Your task to perform on an android device: Open settings on Google Maps Image 0: 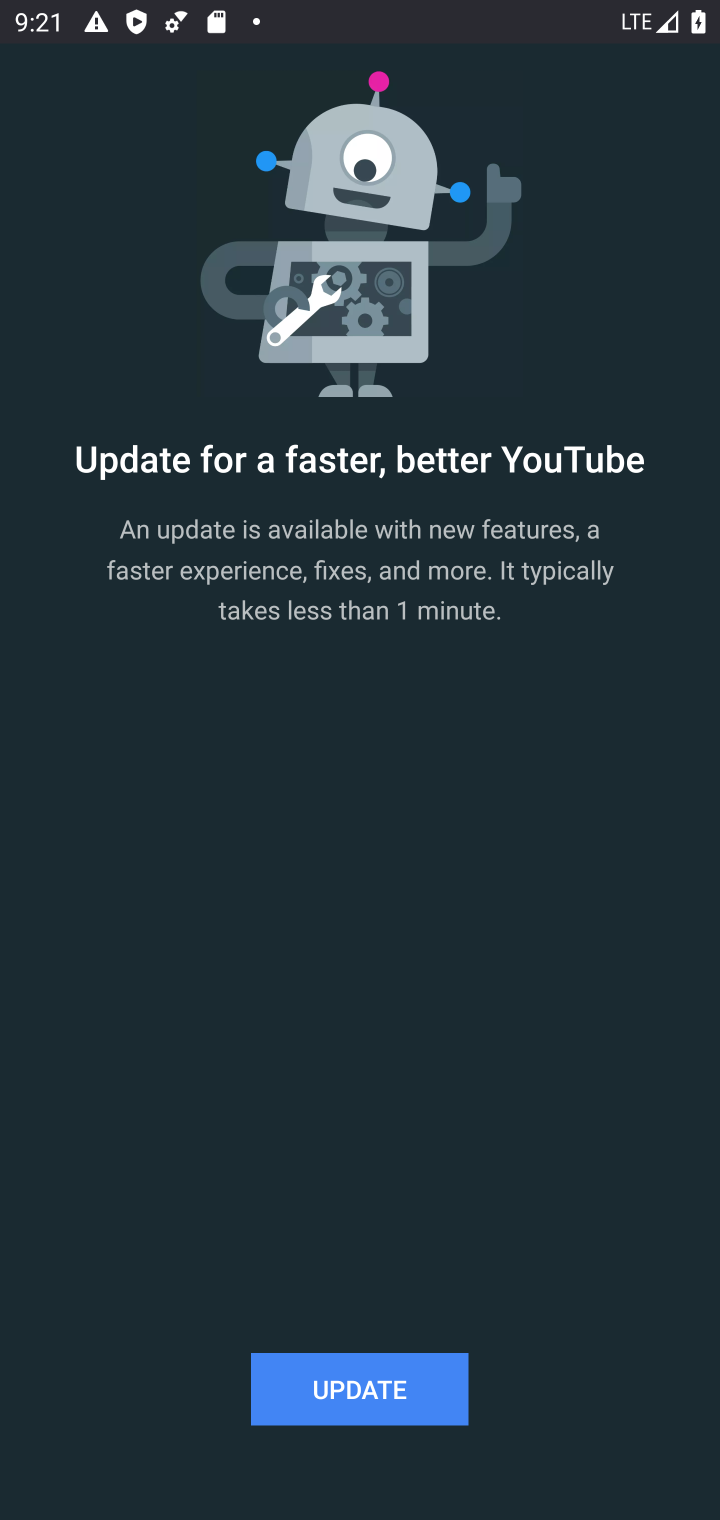
Step 0: press home button
Your task to perform on an android device: Open settings on Google Maps Image 1: 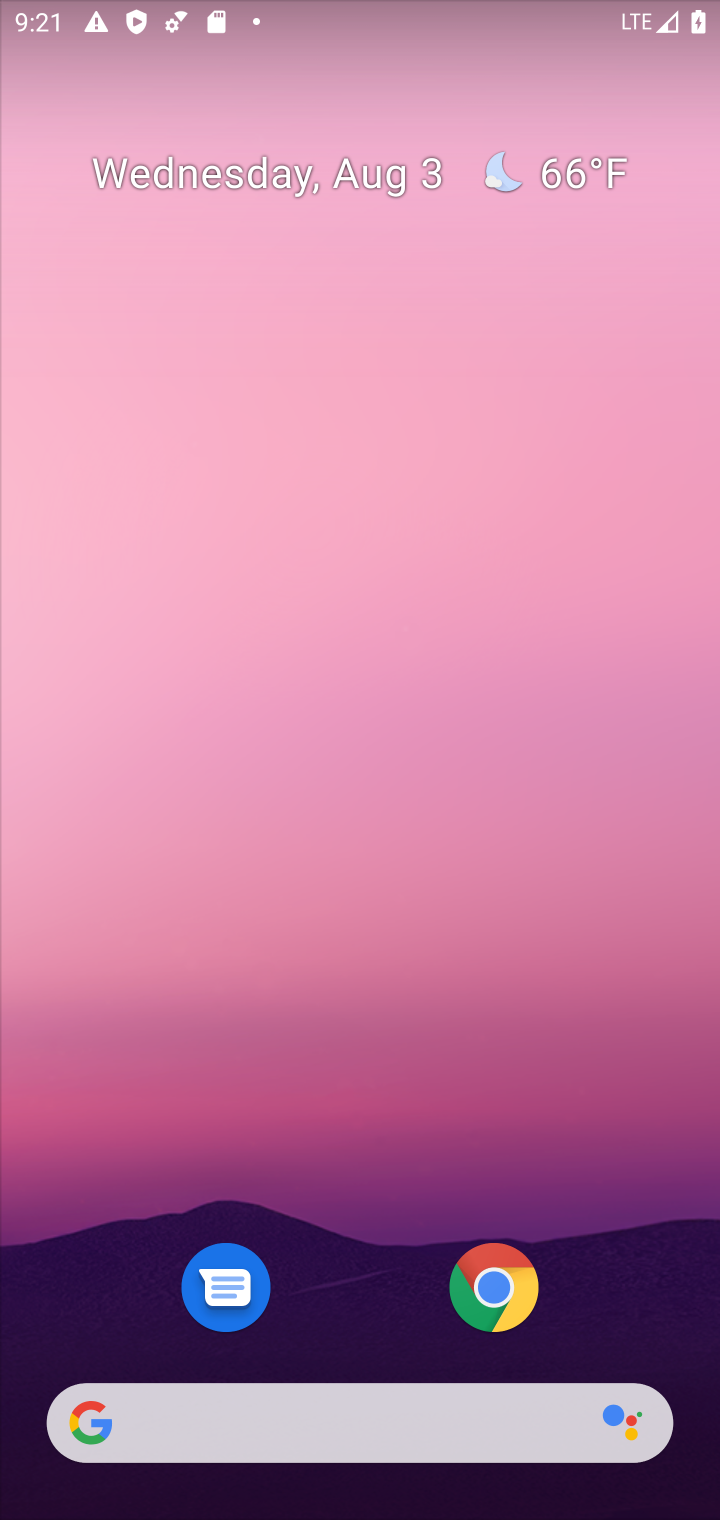
Step 1: drag from (238, 794) to (169, 15)
Your task to perform on an android device: Open settings on Google Maps Image 2: 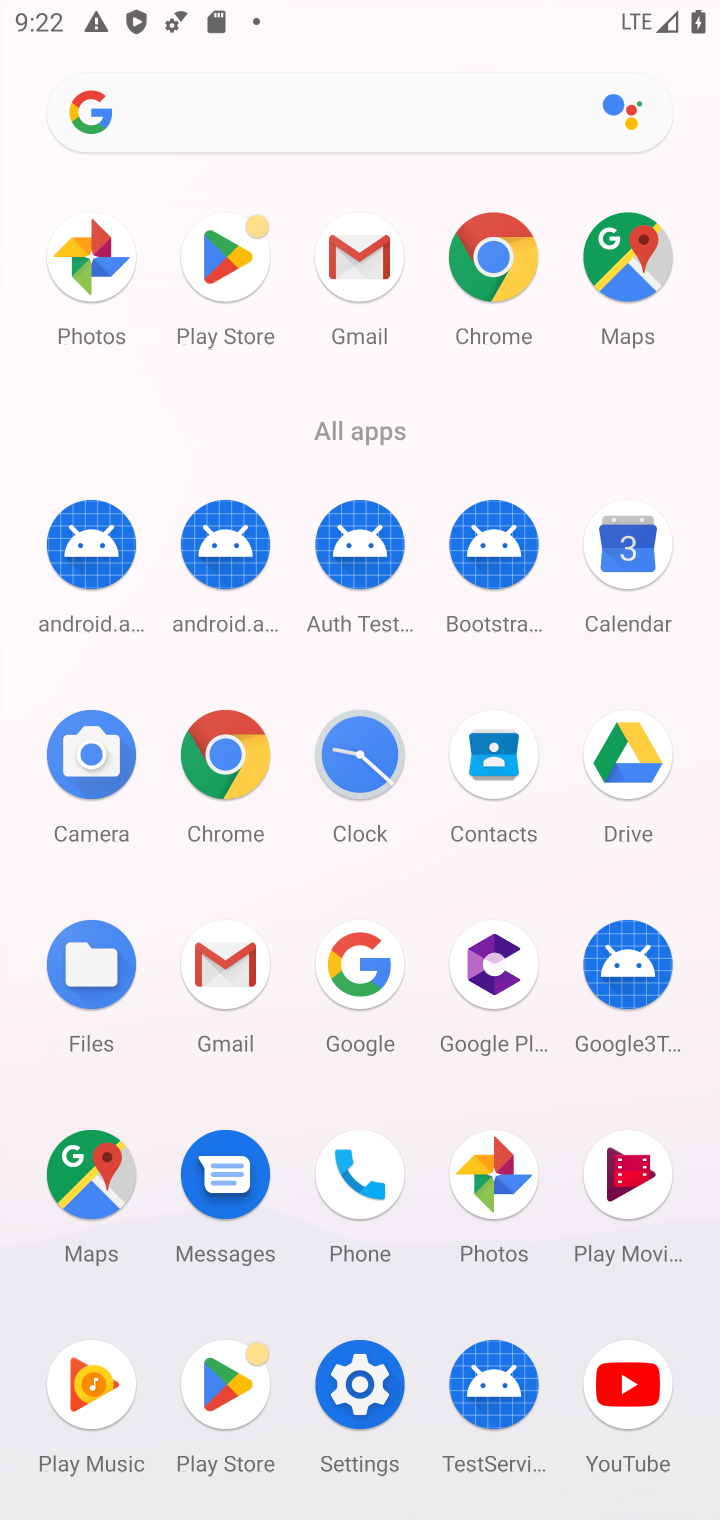
Step 2: click (363, 974)
Your task to perform on an android device: Open settings on Google Maps Image 3: 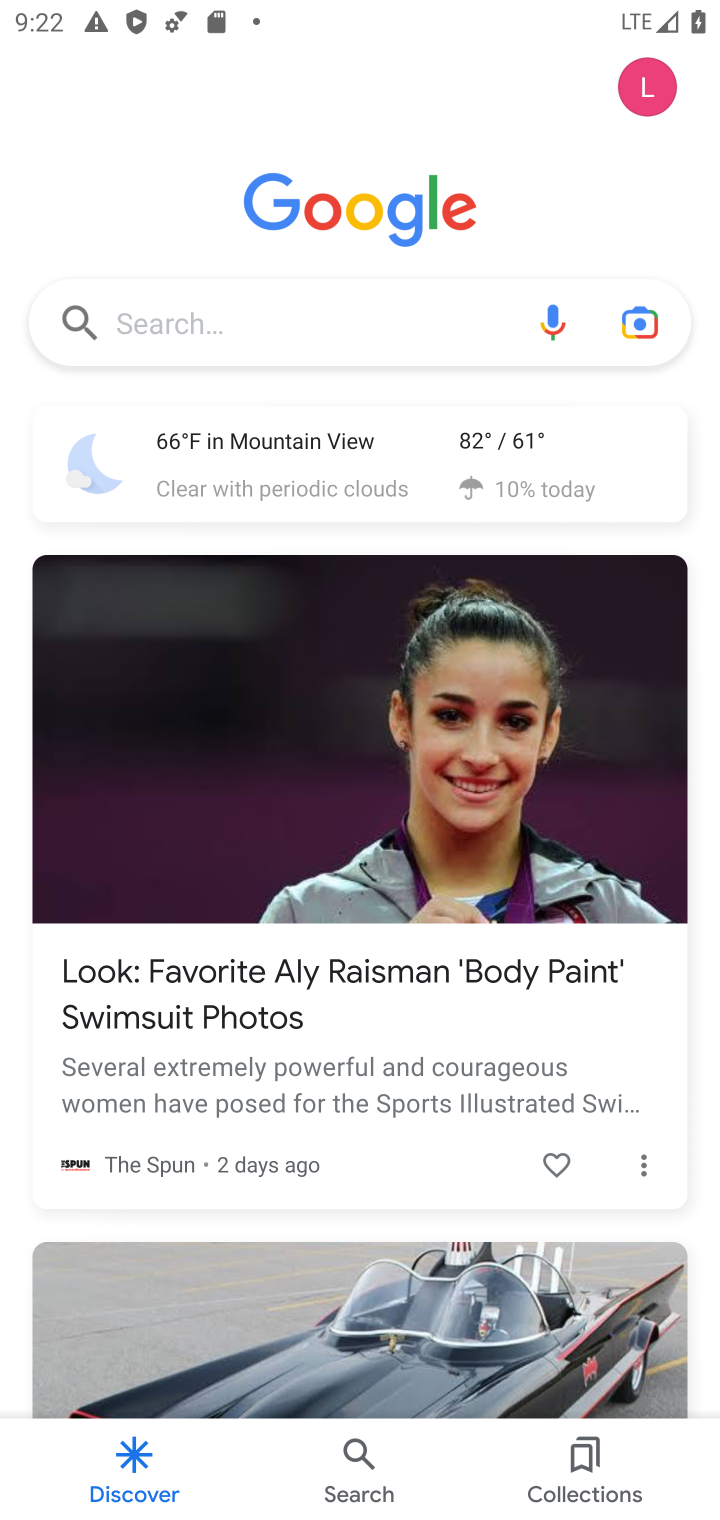
Step 3: task complete